Your task to perform on an android device: Go to network settings Image 0: 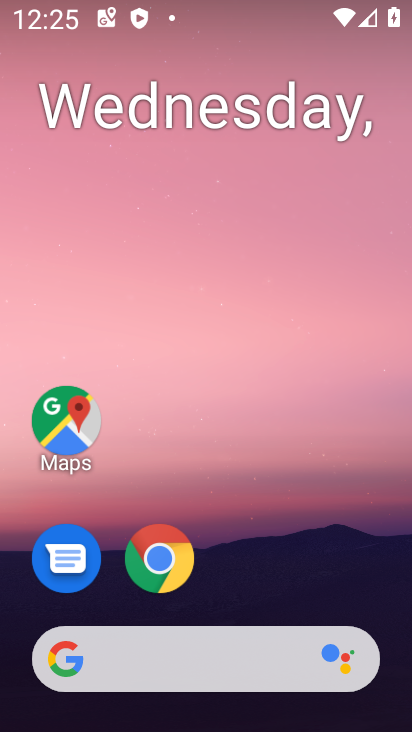
Step 0: drag from (274, 608) to (313, 0)
Your task to perform on an android device: Go to network settings Image 1: 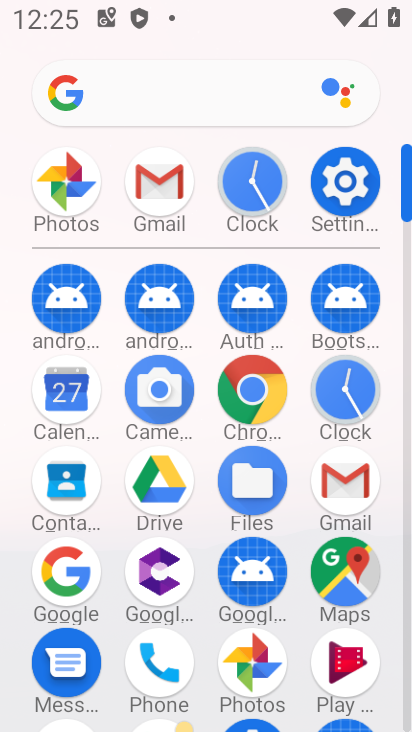
Step 1: click (351, 185)
Your task to perform on an android device: Go to network settings Image 2: 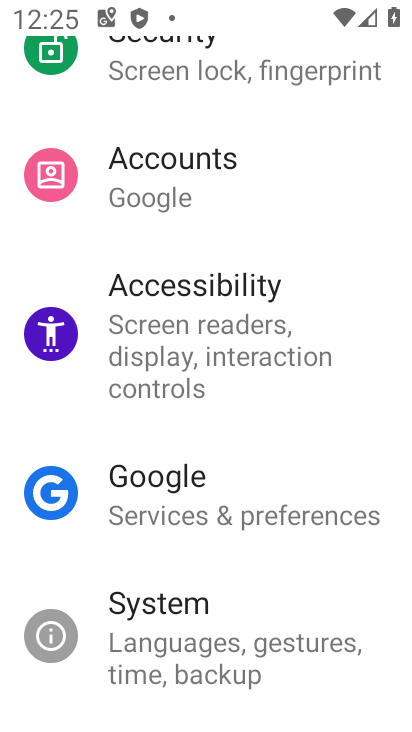
Step 2: drag from (280, 148) to (206, 713)
Your task to perform on an android device: Go to network settings Image 3: 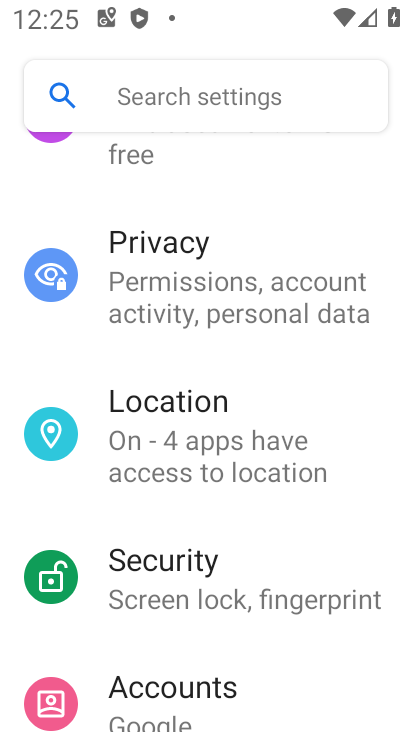
Step 3: drag from (270, 186) to (231, 698)
Your task to perform on an android device: Go to network settings Image 4: 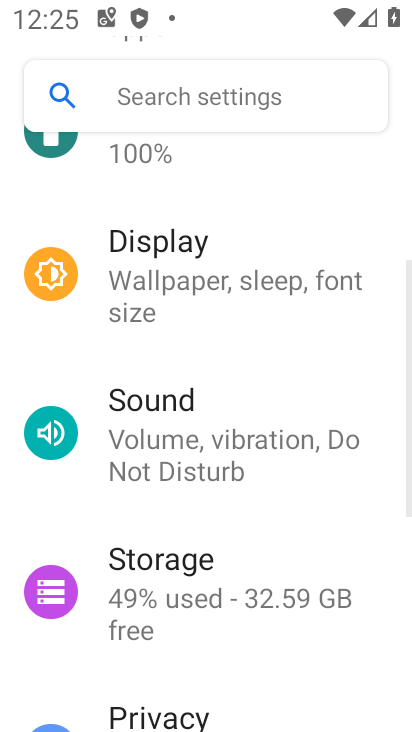
Step 4: drag from (241, 219) to (204, 707)
Your task to perform on an android device: Go to network settings Image 5: 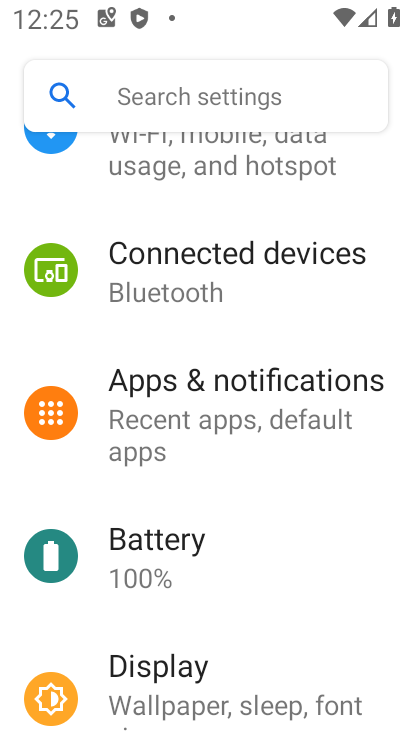
Step 5: drag from (234, 223) to (234, 693)
Your task to perform on an android device: Go to network settings Image 6: 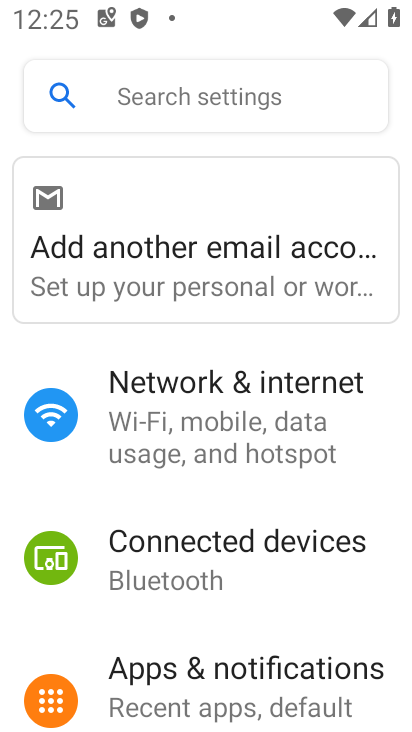
Step 6: click (192, 434)
Your task to perform on an android device: Go to network settings Image 7: 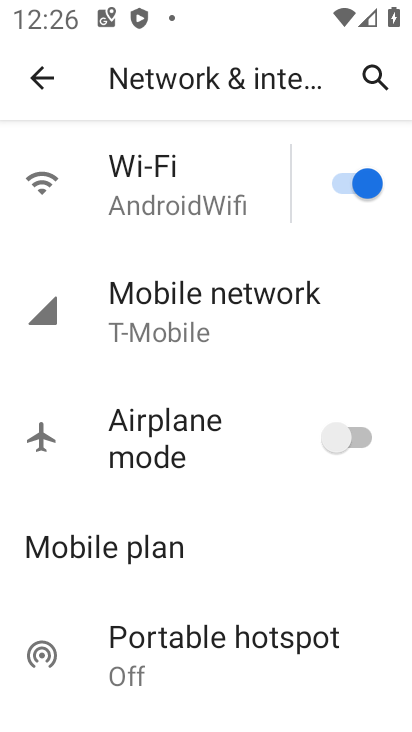
Step 7: task complete